Your task to perform on an android device: See recent photos Image 0: 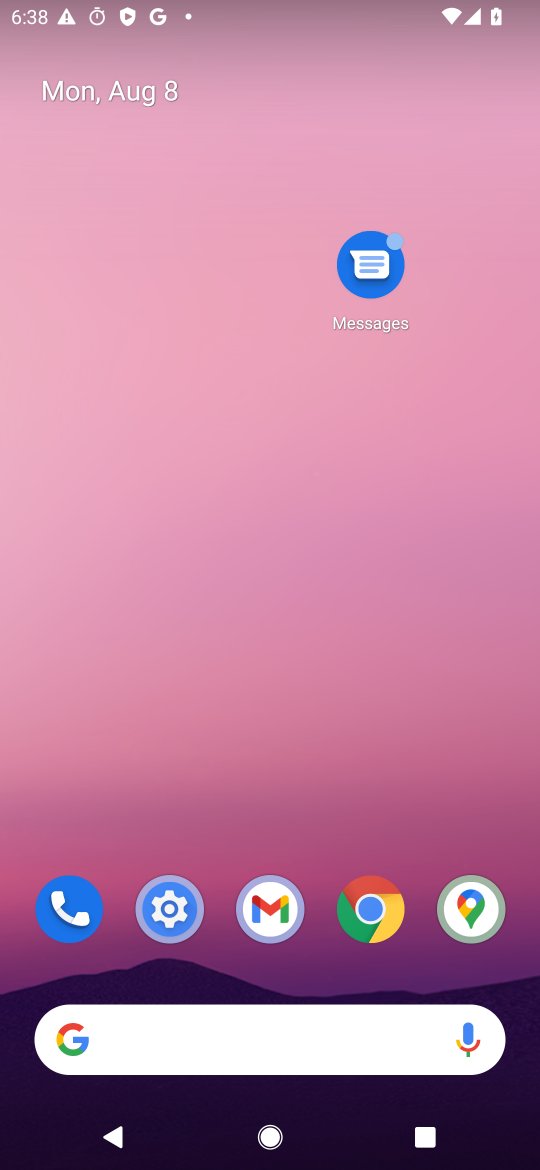
Step 0: drag from (205, 1042) to (487, 329)
Your task to perform on an android device: See recent photos Image 1: 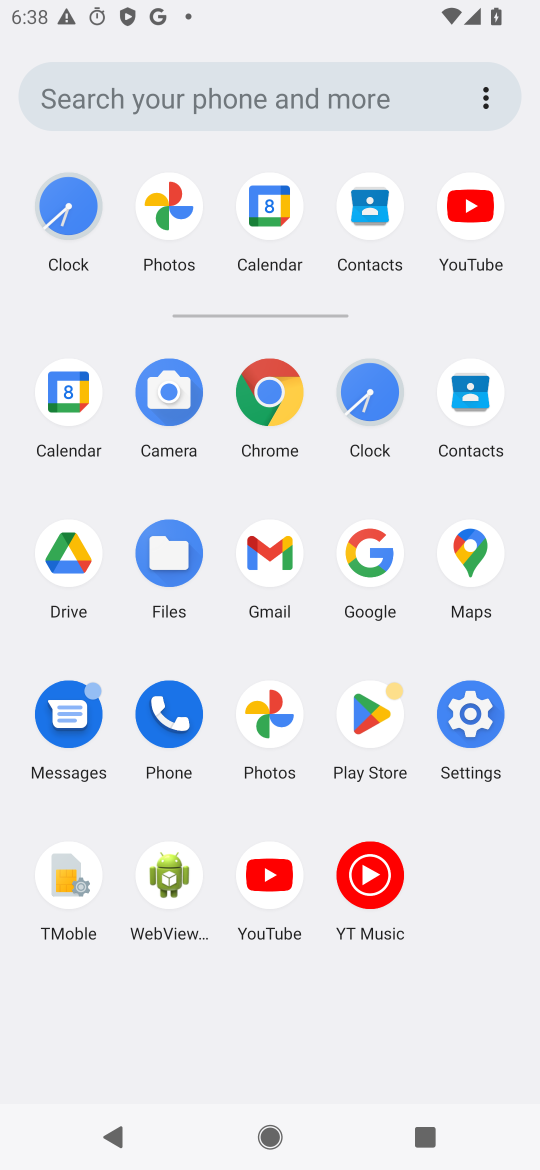
Step 1: click (267, 721)
Your task to perform on an android device: See recent photos Image 2: 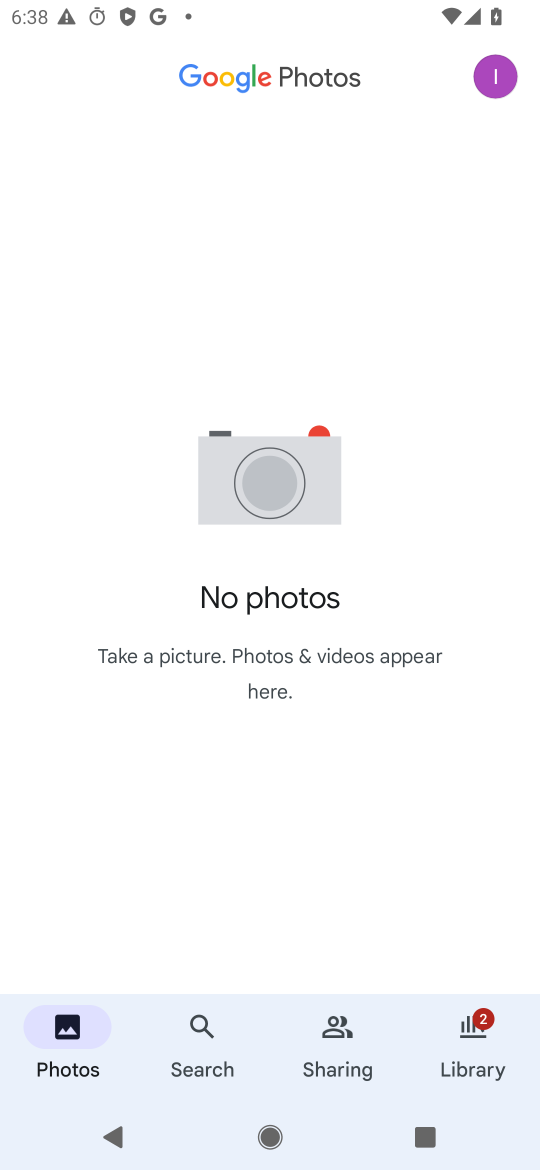
Step 2: click (191, 1057)
Your task to perform on an android device: See recent photos Image 3: 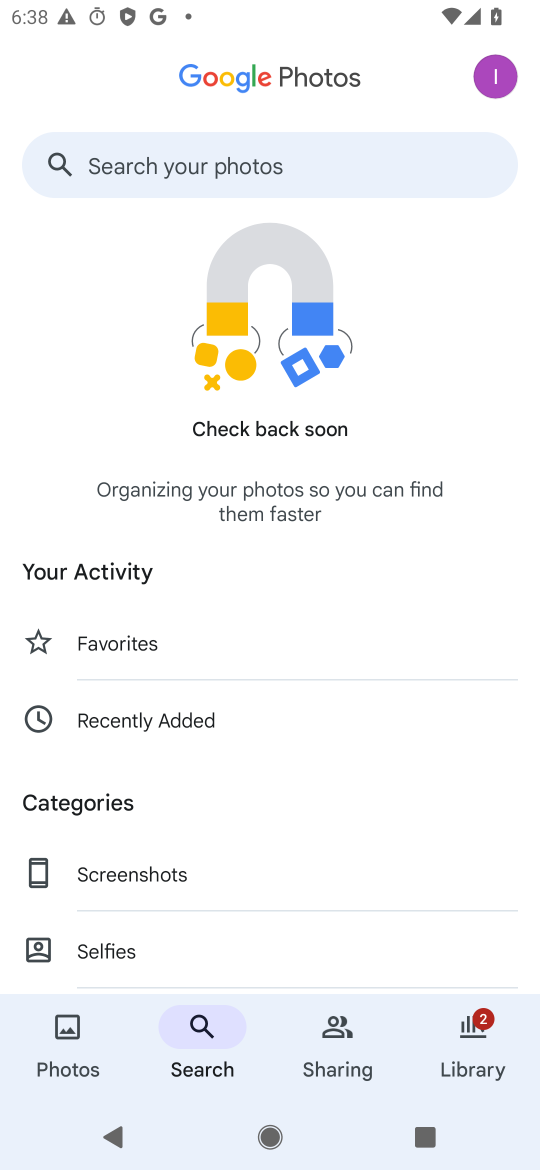
Step 3: click (187, 728)
Your task to perform on an android device: See recent photos Image 4: 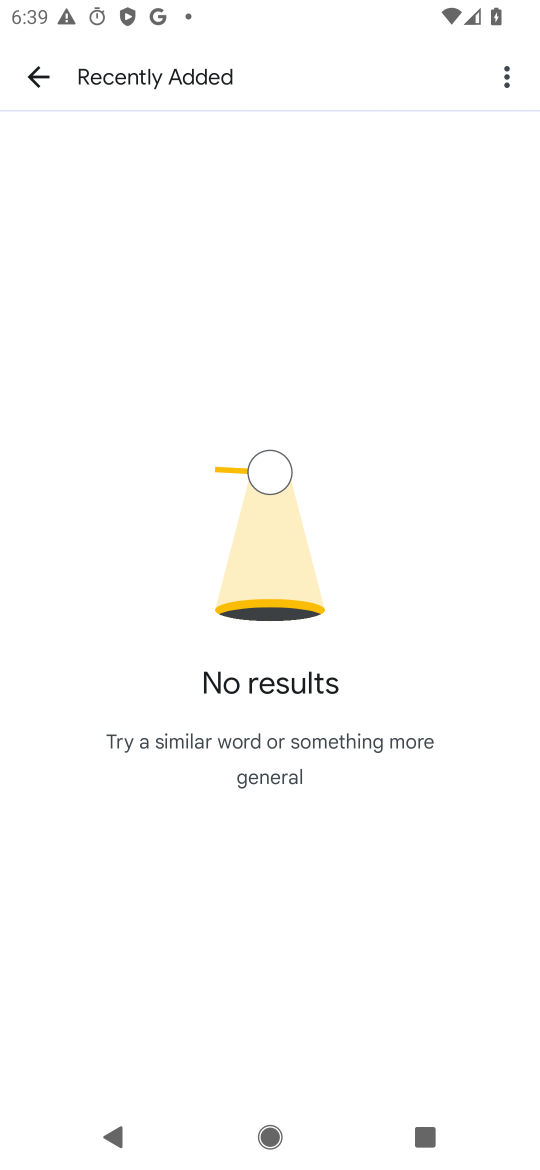
Step 4: task complete